Your task to perform on an android device: open chrome privacy settings Image 0: 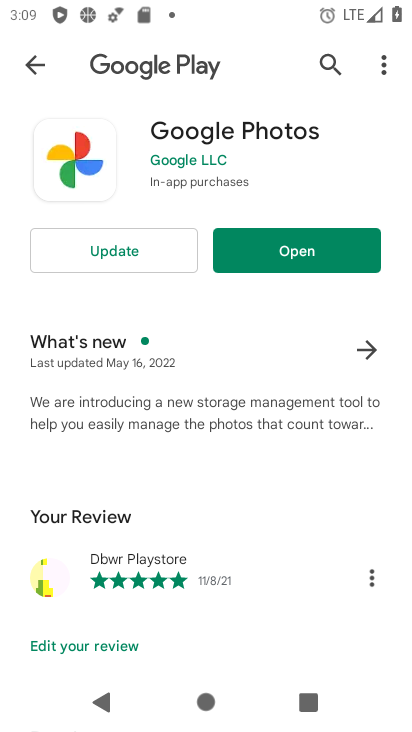
Step 0: press home button
Your task to perform on an android device: open chrome privacy settings Image 1: 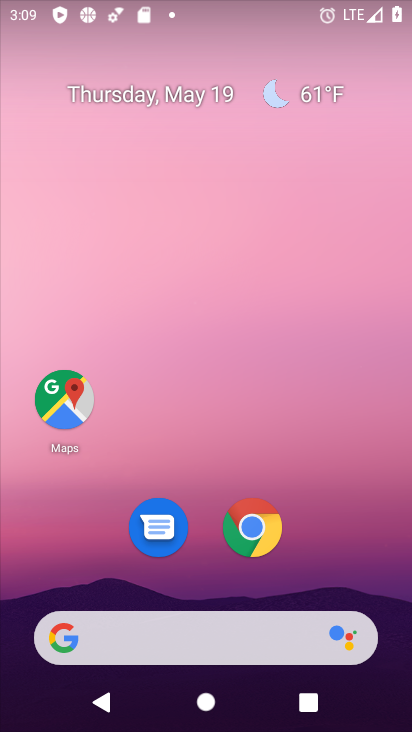
Step 1: click (241, 544)
Your task to perform on an android device: open chrome privacy settings Image 2: 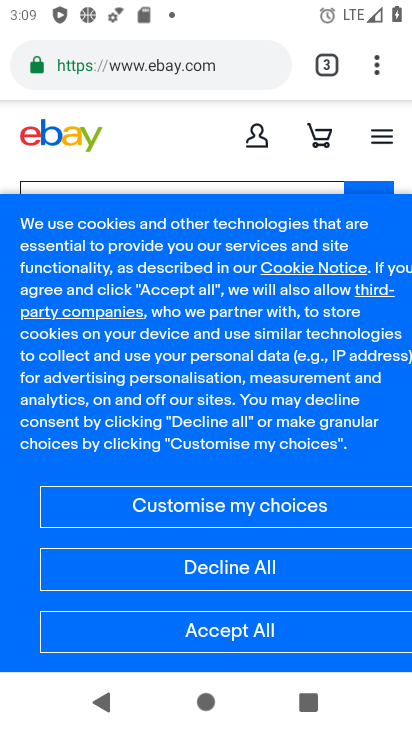
Step 2: drag from (370, 58) to (168, 581)
Your task to perform on an android device: open chrome privacy settings Image 3: 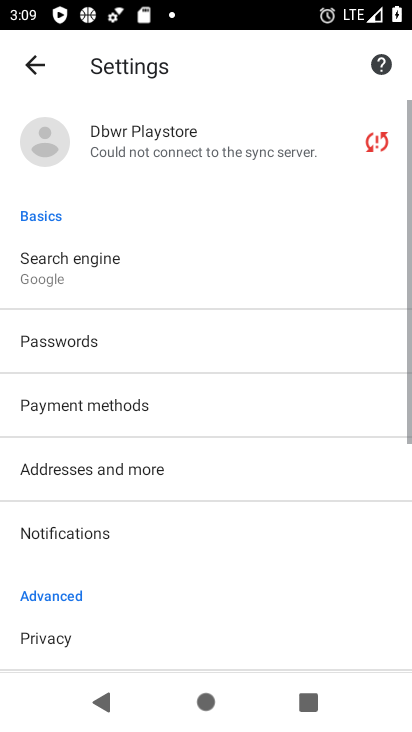
Step 3: drag from (141, 601) to (205, 265)
Your task to perform on an android device: open chrome privacy settings Image 4: 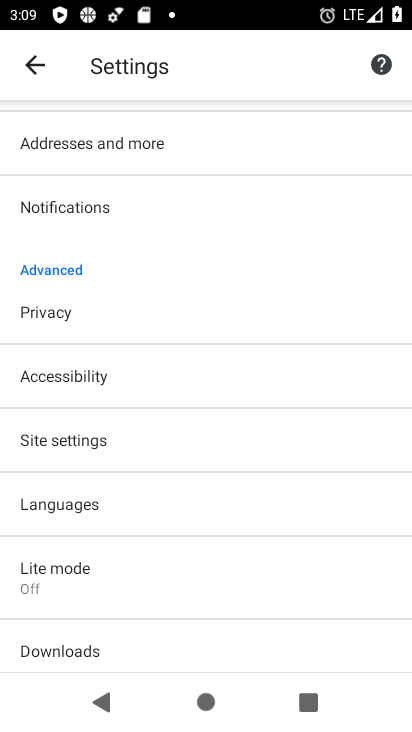
Step 4: click (50, 308)
Your task to perform on an android device: open chrome privacy settings Image 5: 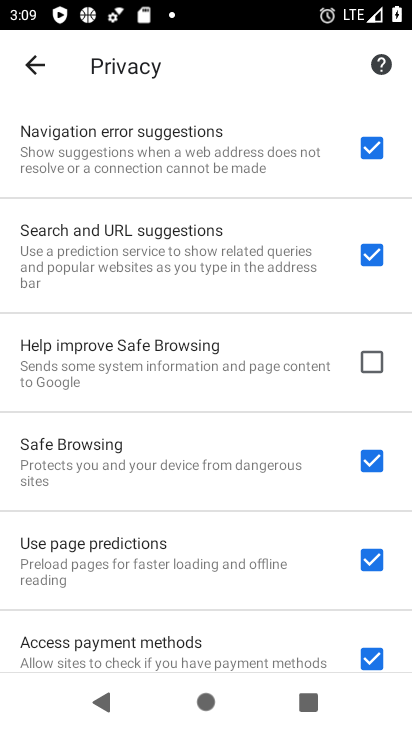
Step 5: task complete